Your task to perform on an android device: delete browsing data in the chrome app Image 0: 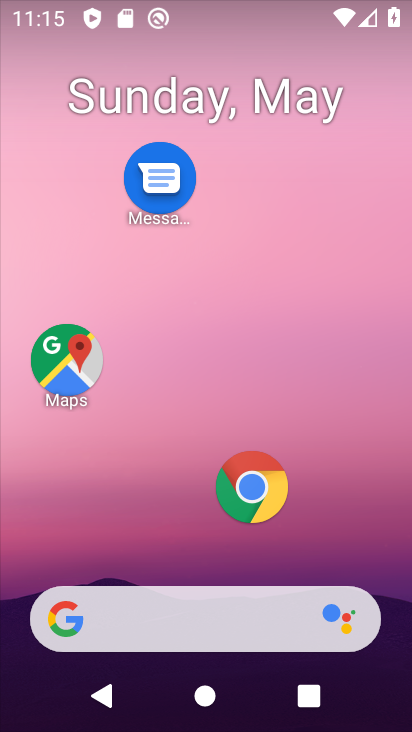
Step 0: click (237, 484)
Your task to perform on an android device: delete browsing data in the chrome app Image 1: 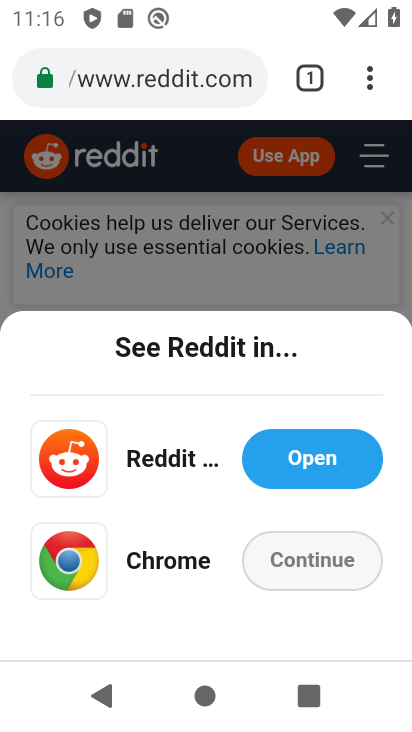
Step 1: click (373, 83)
Your task to perform on an android device: delete browsing data in the chrome app Image 2: 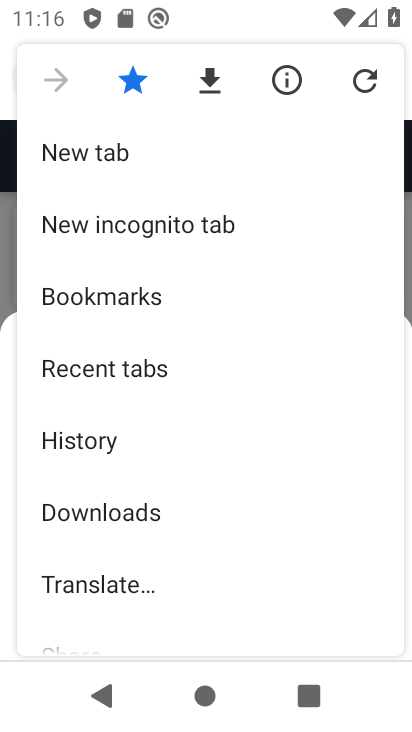
Step 2: click (105, 428)
Your task to perform on an android device: delete browsing data in the chrome app Image 3: 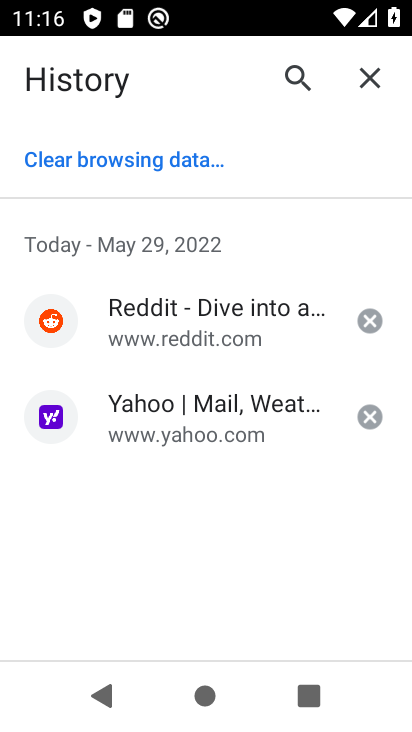
Step 3: click (129, 165)
Your task to perform on an android device: delete browsing data in the chrome app Image 4: 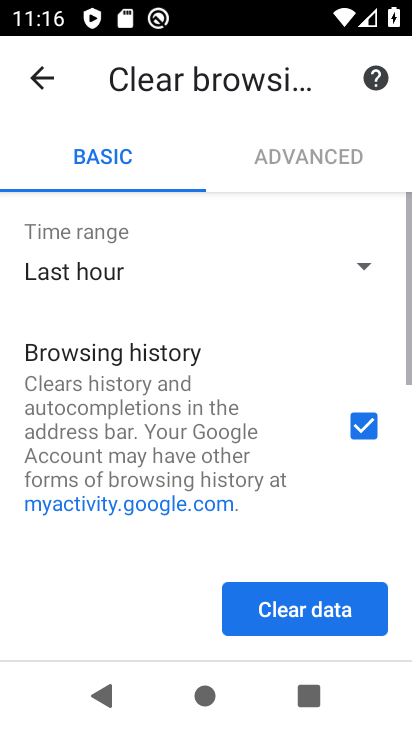
Step 4: click (260, 616)
Your task to perform on an android device: delete browsing data in the chrome app Image 5: 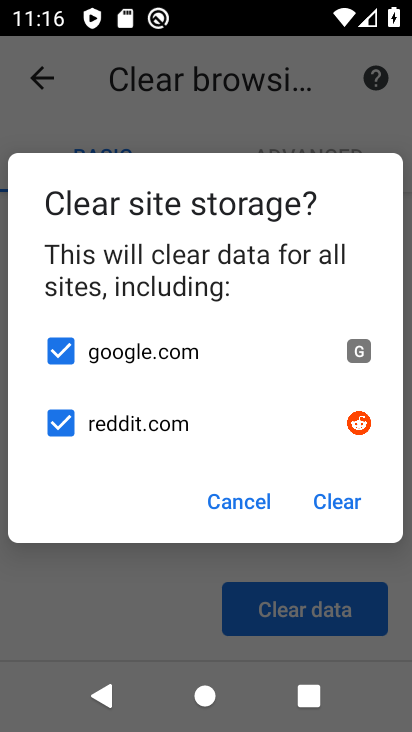
Step 5: click (340, 497)
Your task to perform on an android device: delete browsing data in the chrome app Image 6: 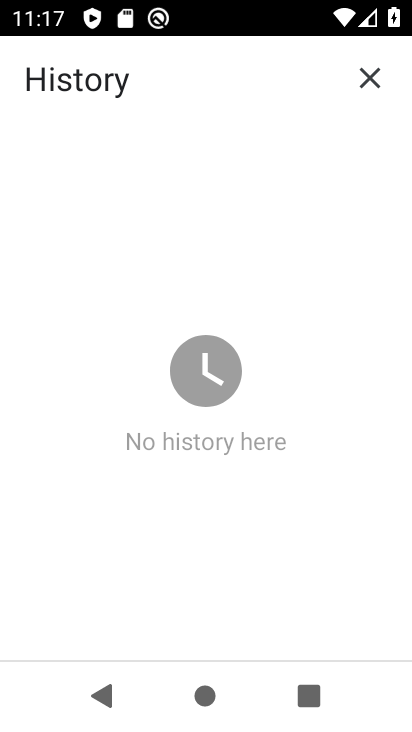
Step 6: task complete